Your task to perform on an android device: Add asus rog to the cart on amazon, then select checkout. Image 0: 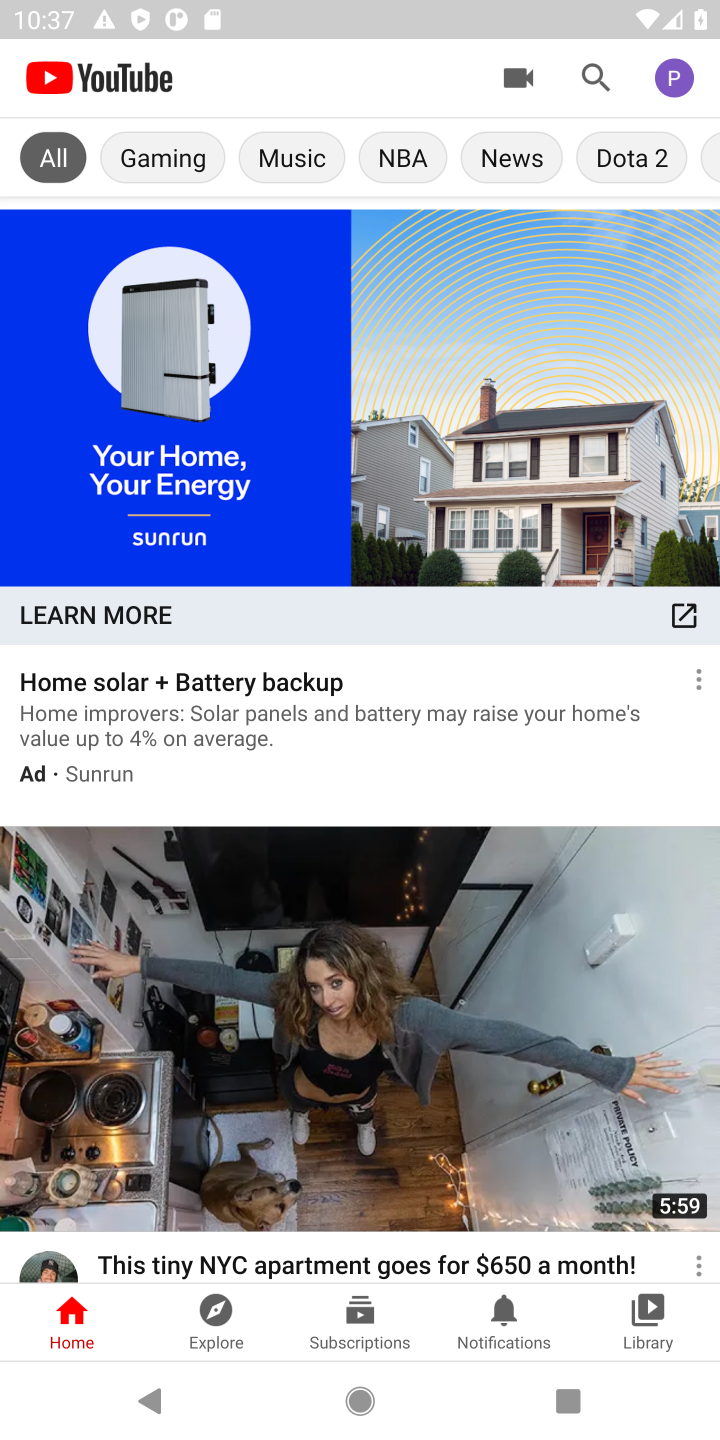
Step 0: press home button
Your task to perform on an android device: Add asus rog to the cart on amazon, then select checkout. Image 1: 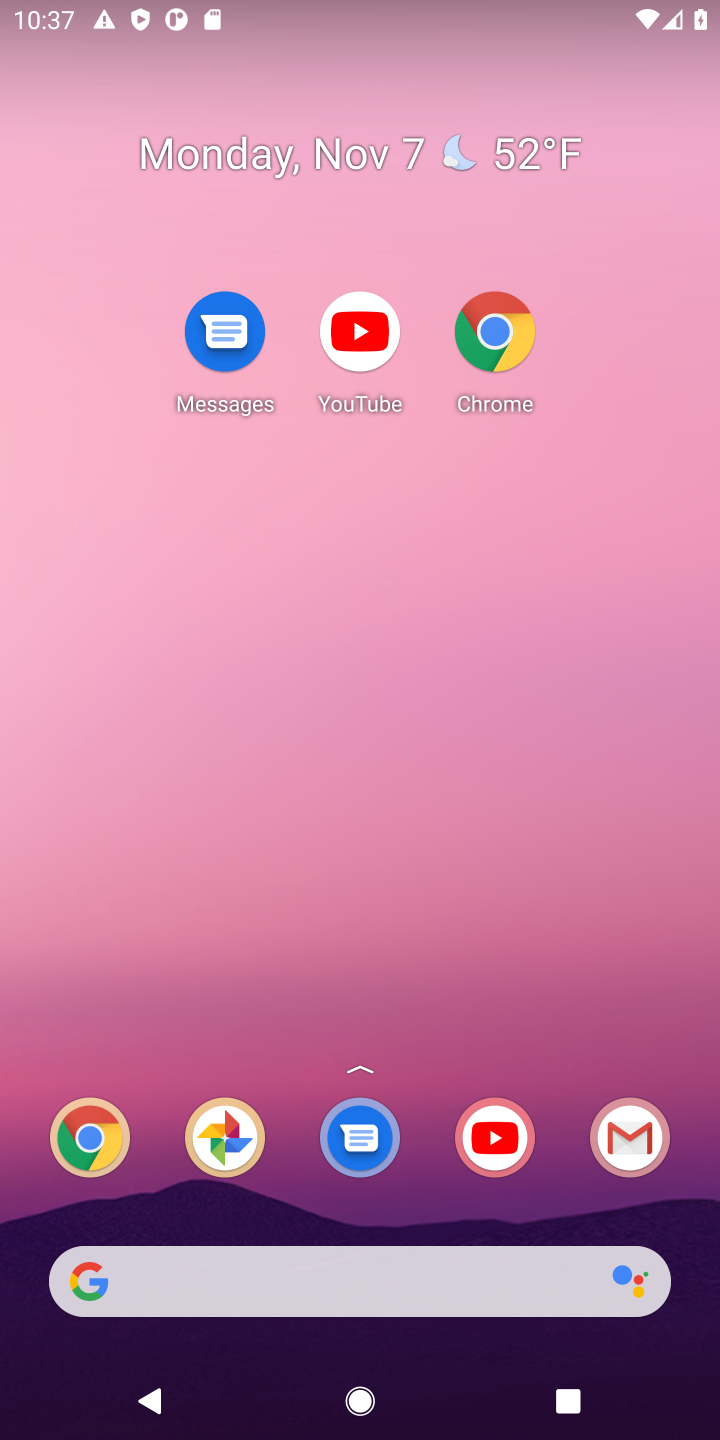
Step 1: drag from (474, 975) to (426, 6)
Your task to perform on an android device: Add asus rog to the cart on amazon, then select checkout. Image 2: 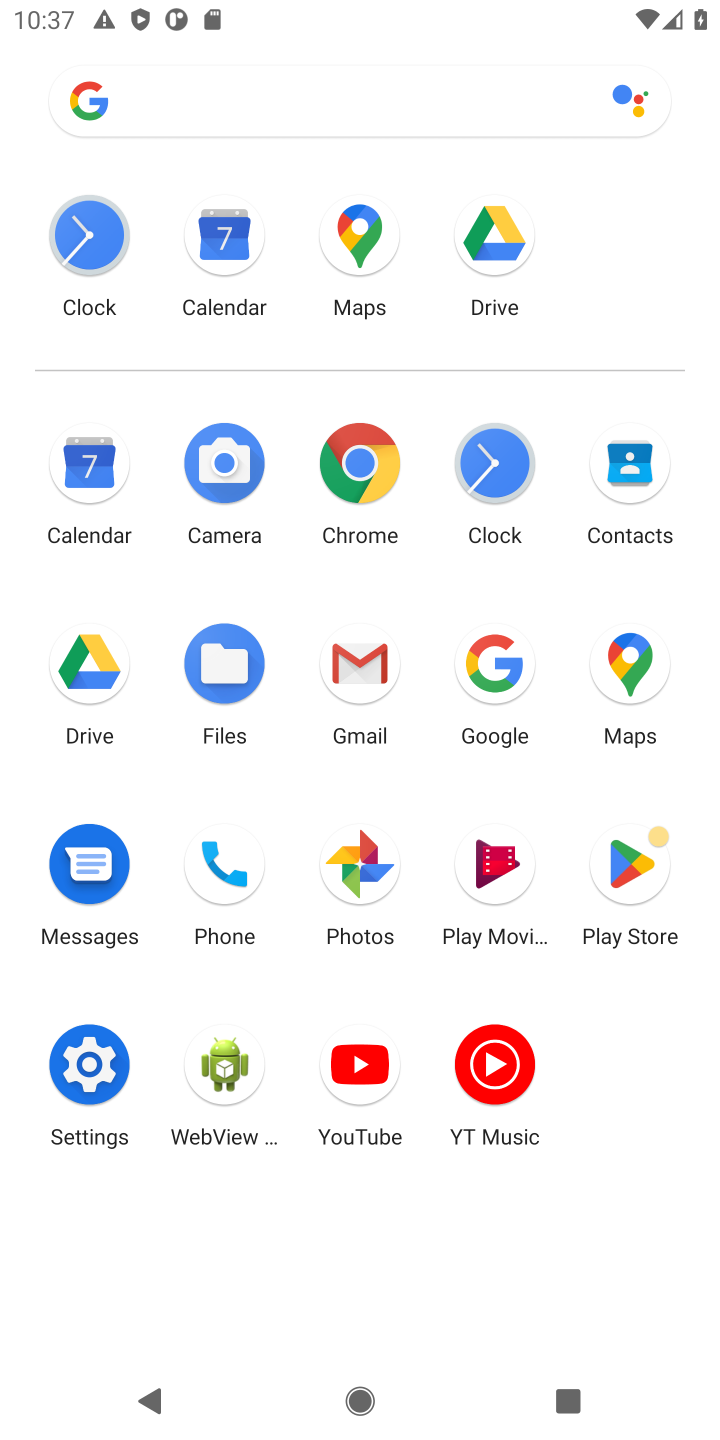
Step 2: click (354, 463)
Your task to perform on an android device: Add asus rog to the cart on amazon, then select checkout. Image 3: 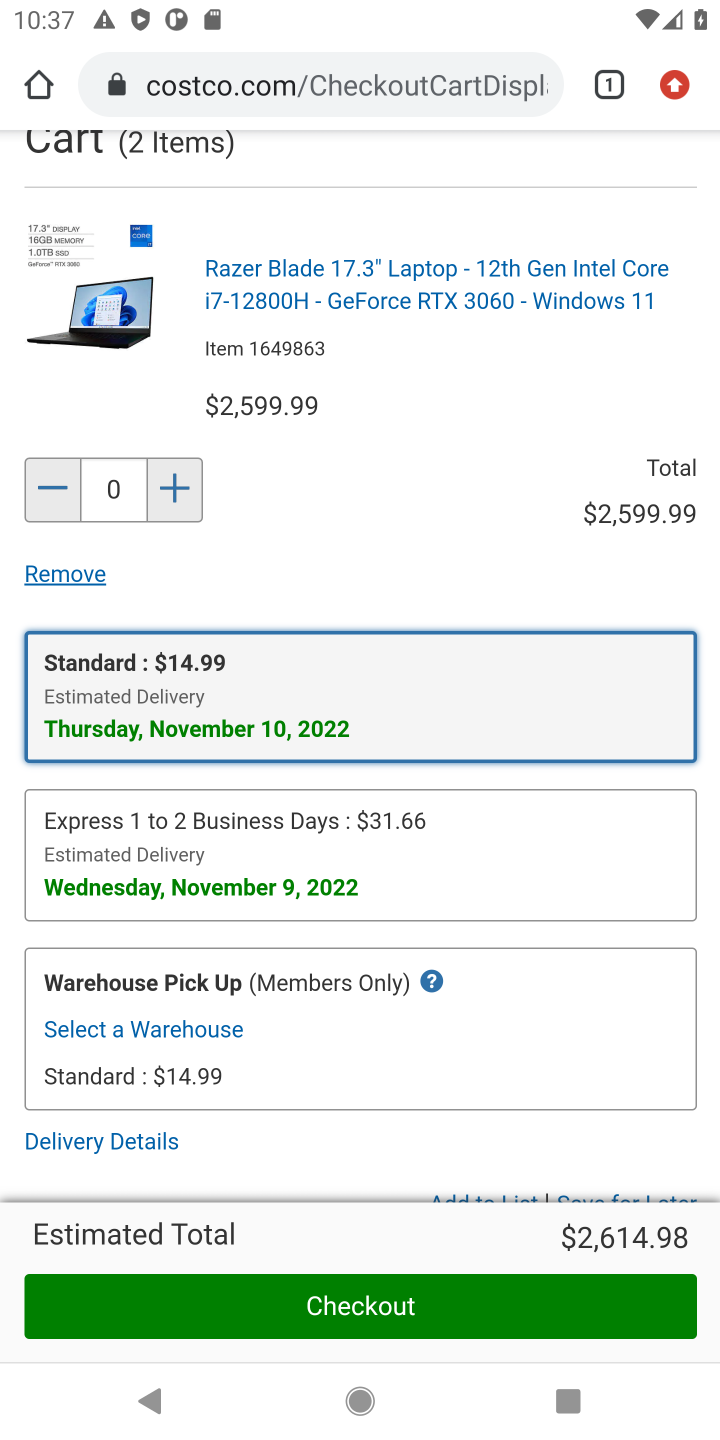
Step 3: click (431, 73)
Your task to perform on an android device: Add asus rog to the cart on amazon, then select checkout. Image 4: 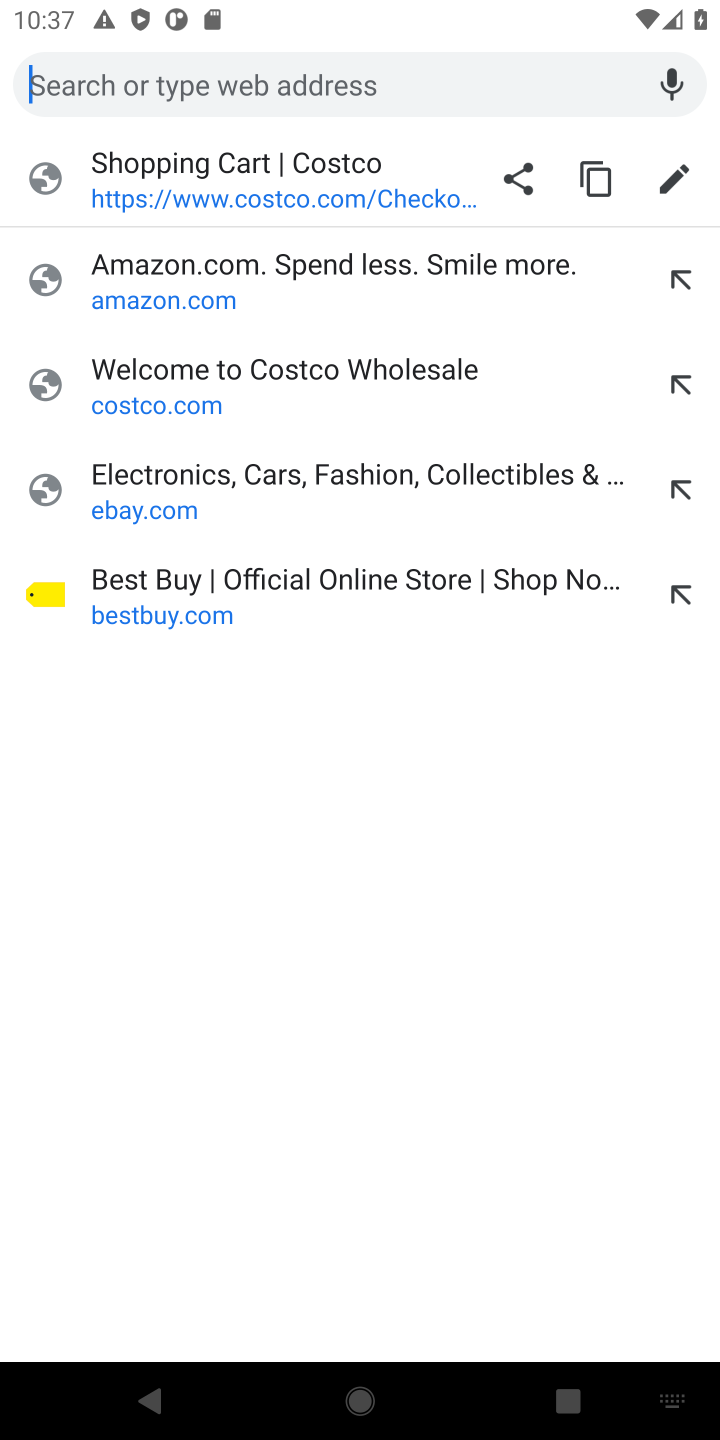
Step 4: type "amazon.com"
Your task to perform on an android device: Add asus rog to the cart on amazon, then select checkout. Image 5: 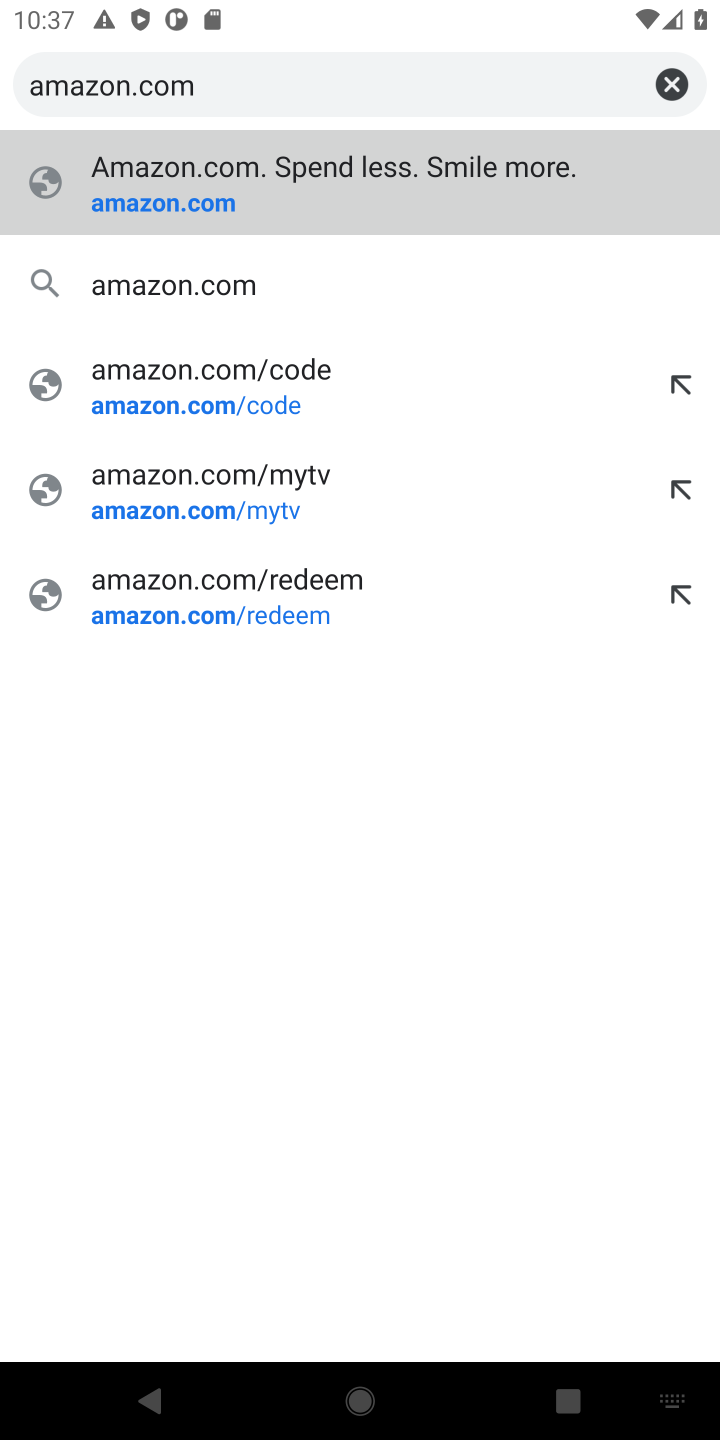
Step 5: press enter
Your task to perform on an android device: Add asus rog to the cart on amazon, then select checkout. Image 6: 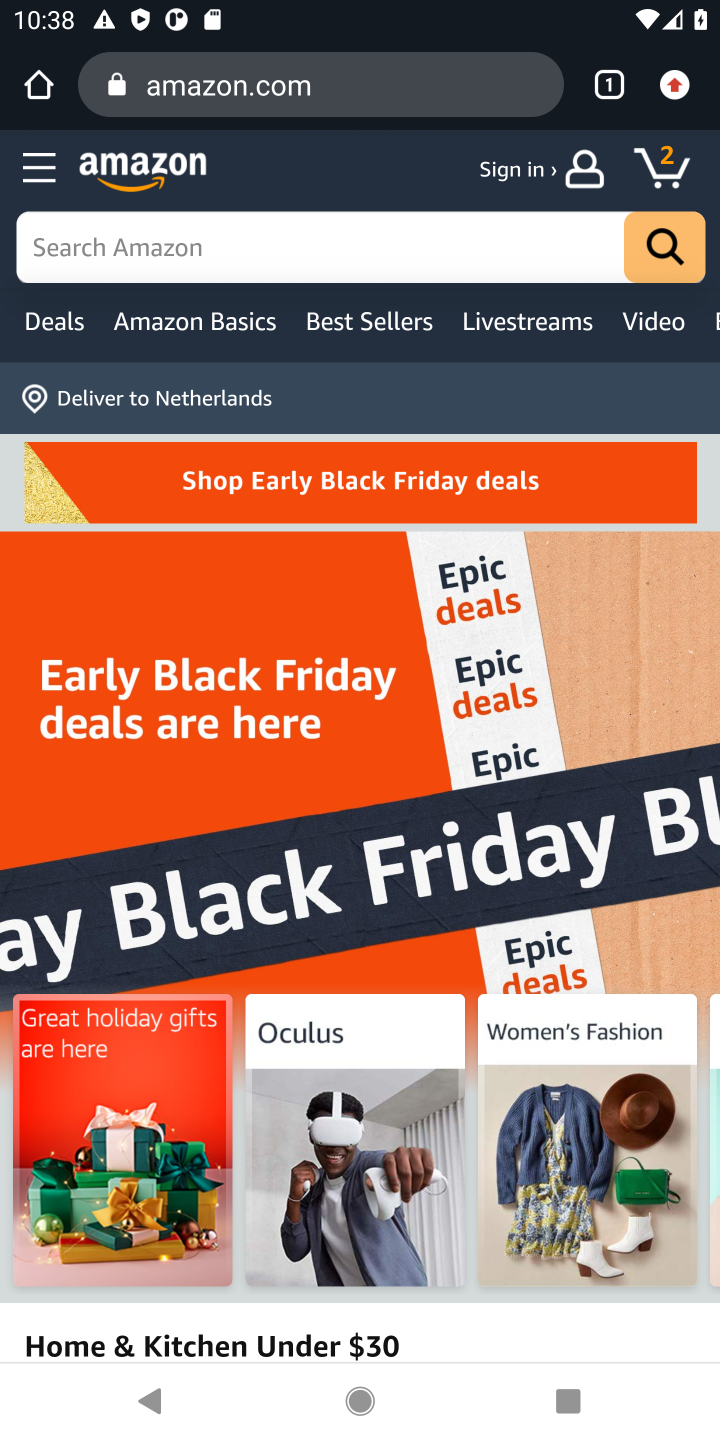
Step 6: click (493, 231)
Your task to perform on an android device: Add asus rog to the cart on amazon, then select checkout. Image 7: 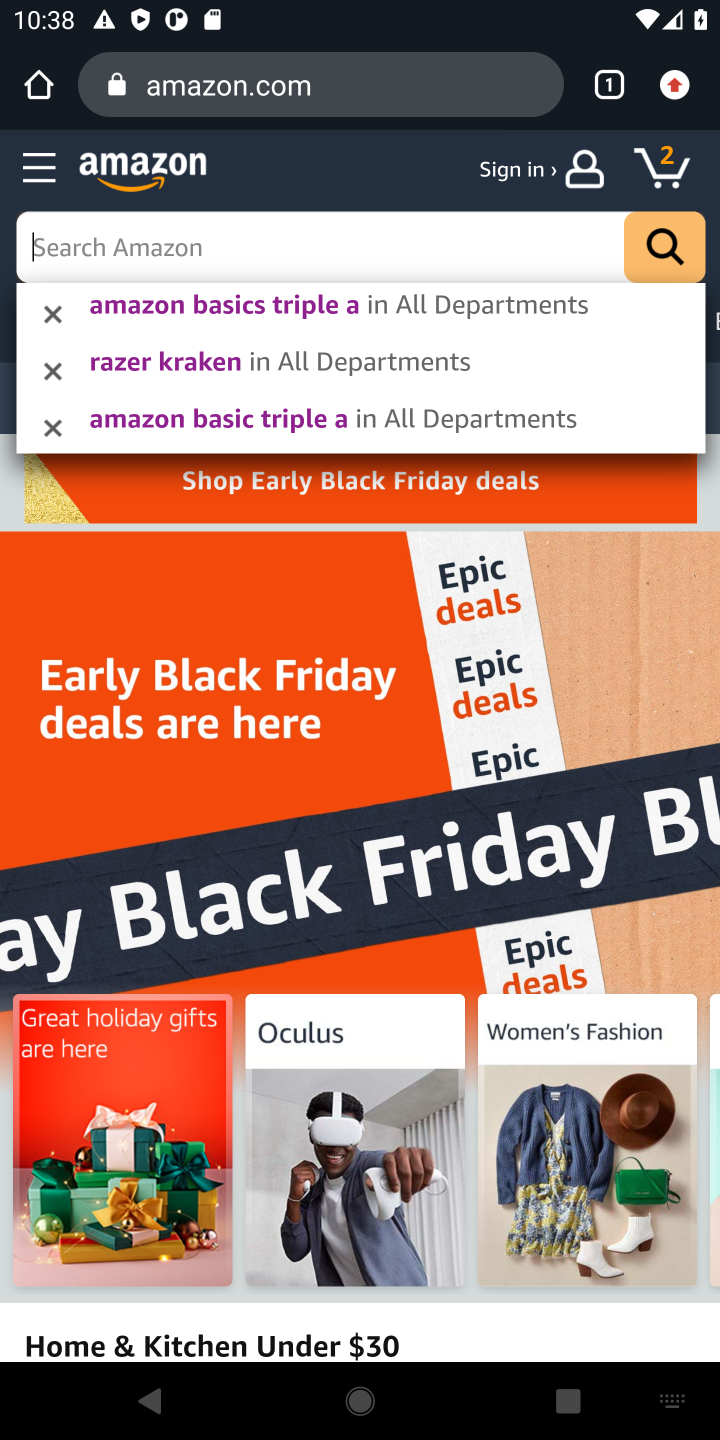
Step 7: type "asus rog"
Your task to perform on an android device: Add asus rog to the cart on amazon, then select checkout. Image 8: 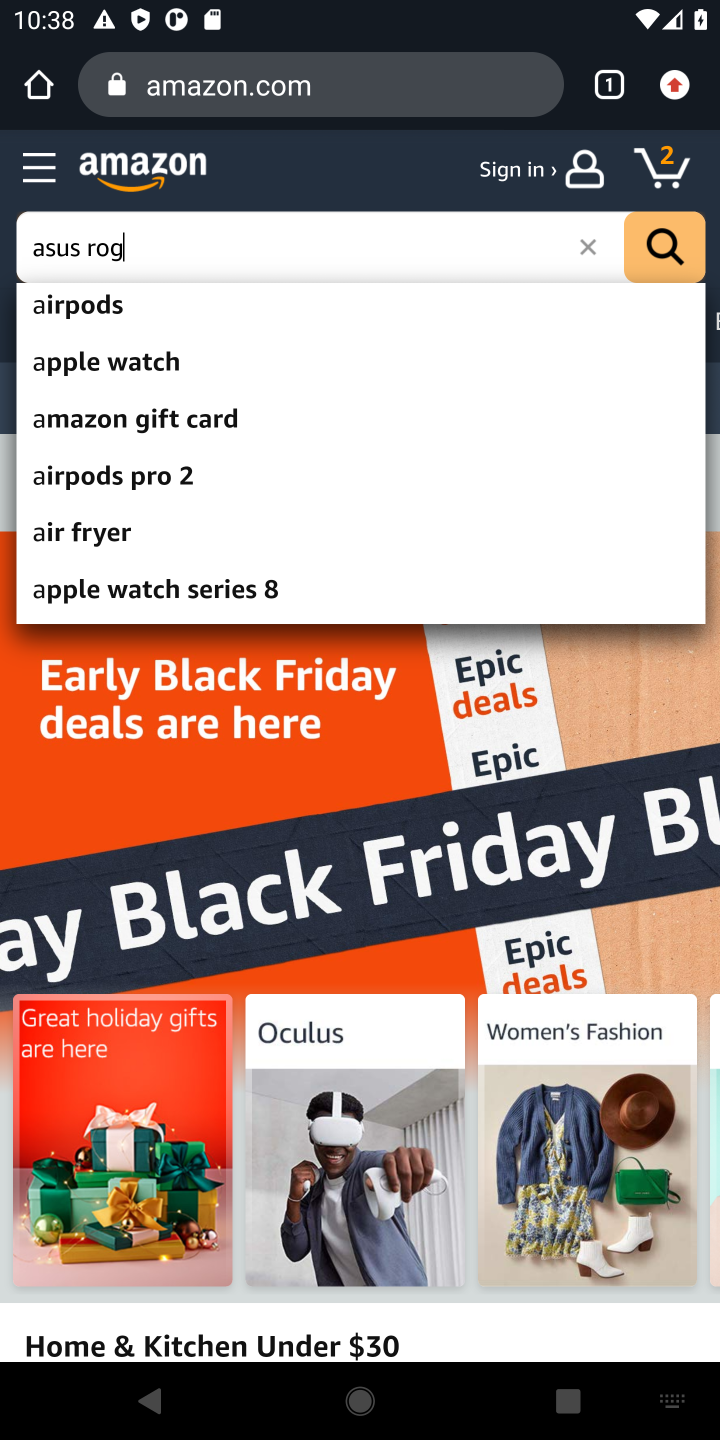
Step 8: press enter
Your task to perform on an android device: Add asus rog to the cart on amazon, then select checkout. Image 9: 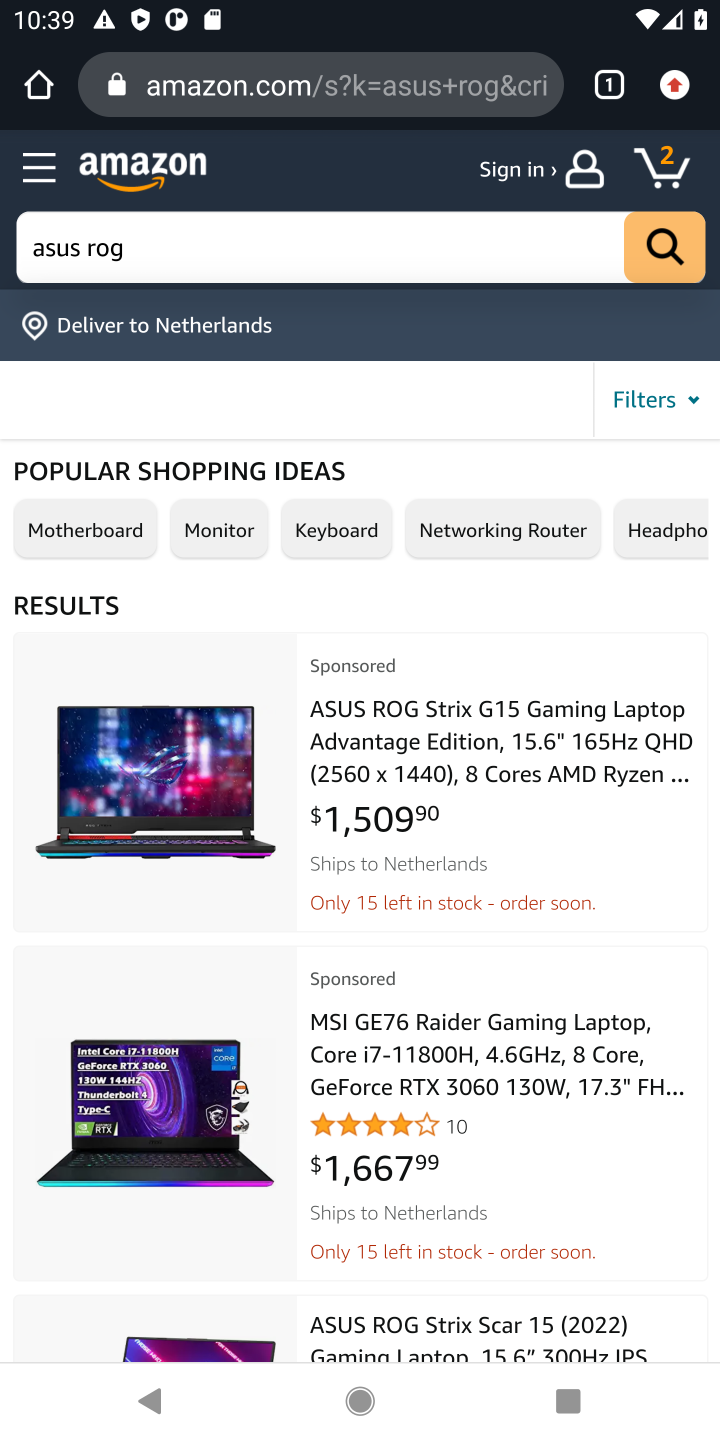
Step 9: drag from (480, 1020) to (509, 502)
Your task to perform on an android device: Add asus rog to the cart on amazon, then select checkout. Image 10: 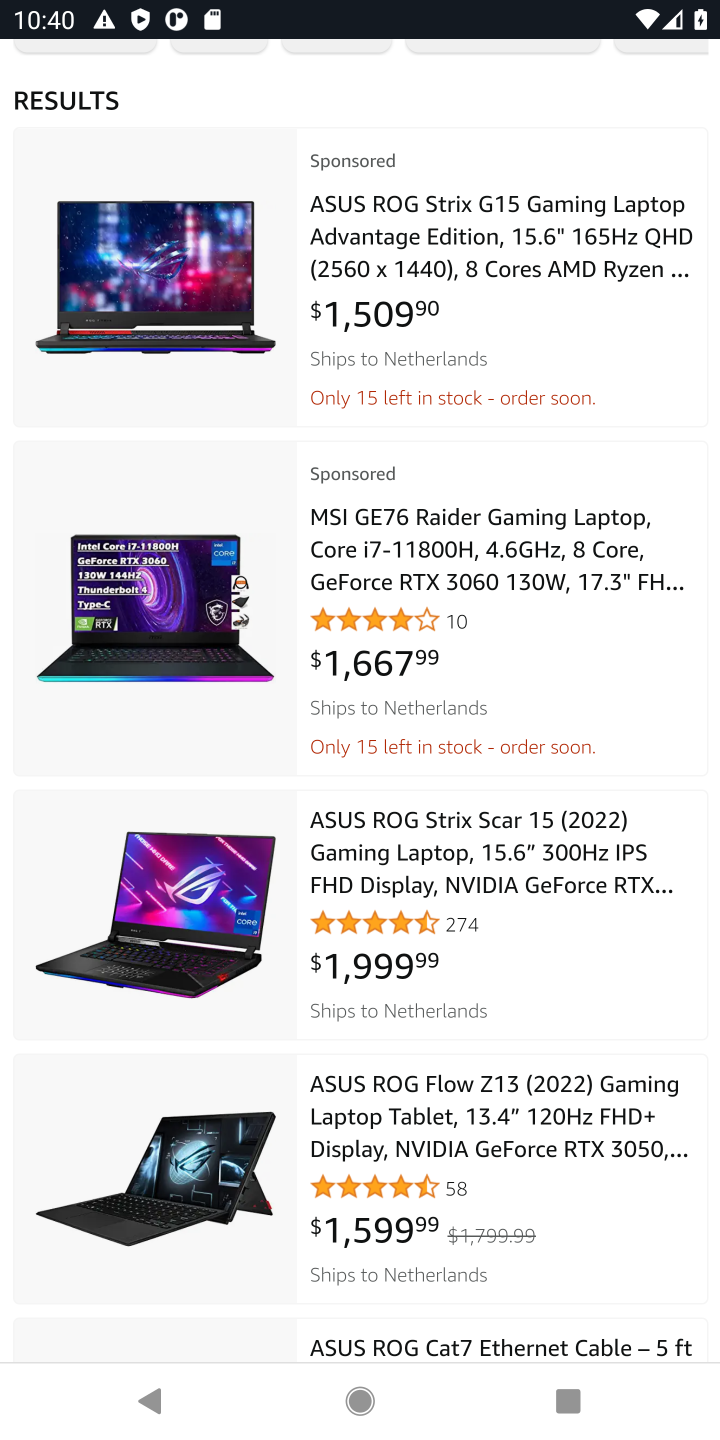
Step 10: click (436, 862)
Your task to perform on an android device: Add asus rog to the cart on amazon, then select checkout. Image 11: 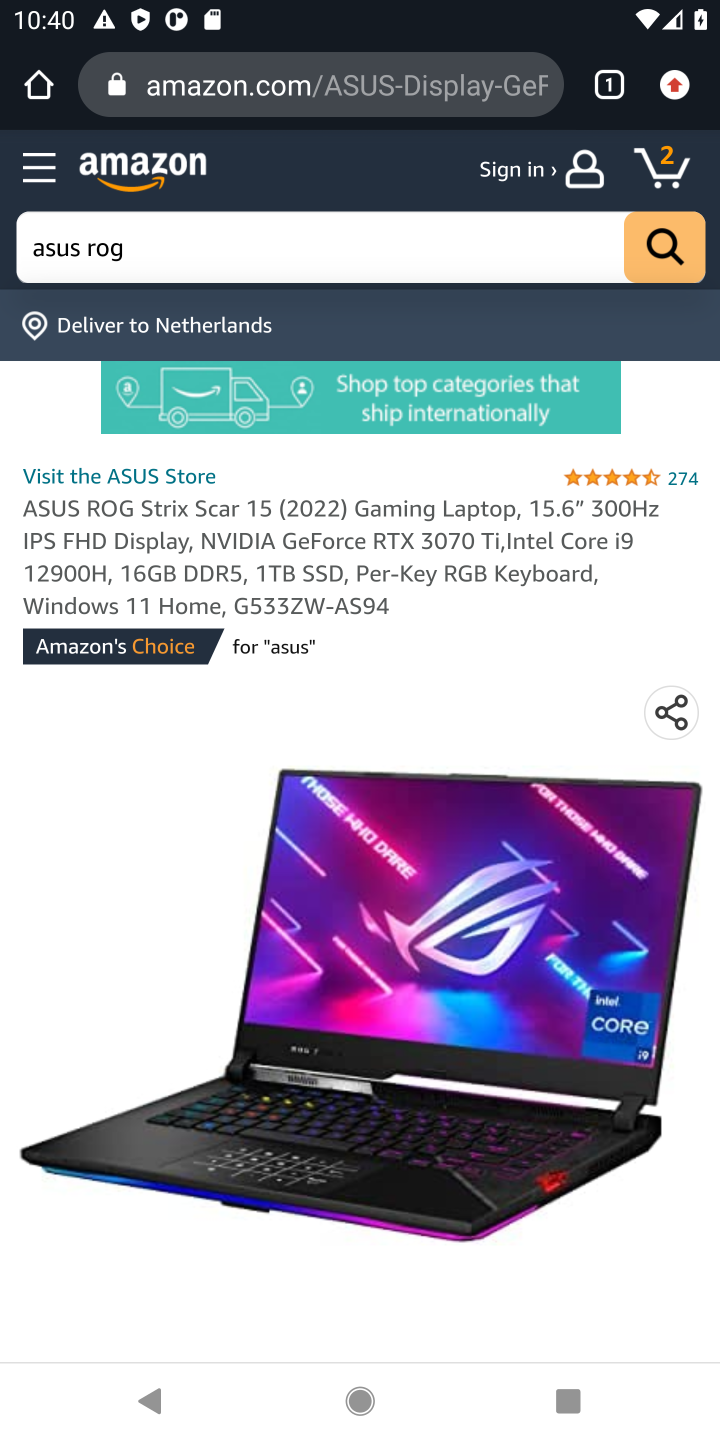
Step 11: drag from (421, 1044) to (455, 335)
Your task to perform on an android device: Add asus rog to the cart on amazon, then select checkout. Image 12: 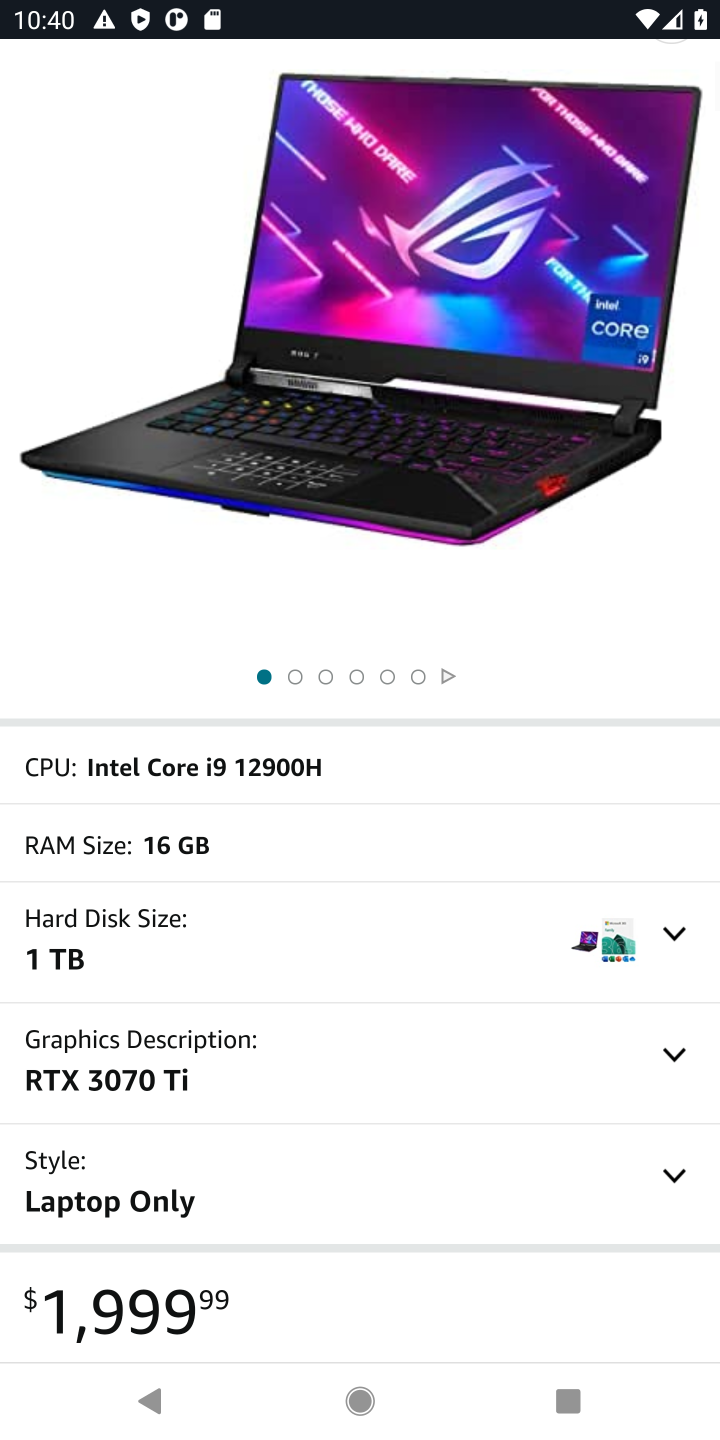
Step 12: drag from (410, 1088) to (515, 539)
Your task to perform on an android device: Add asus rog to the cart on amazon, then select checkout. Image 13: 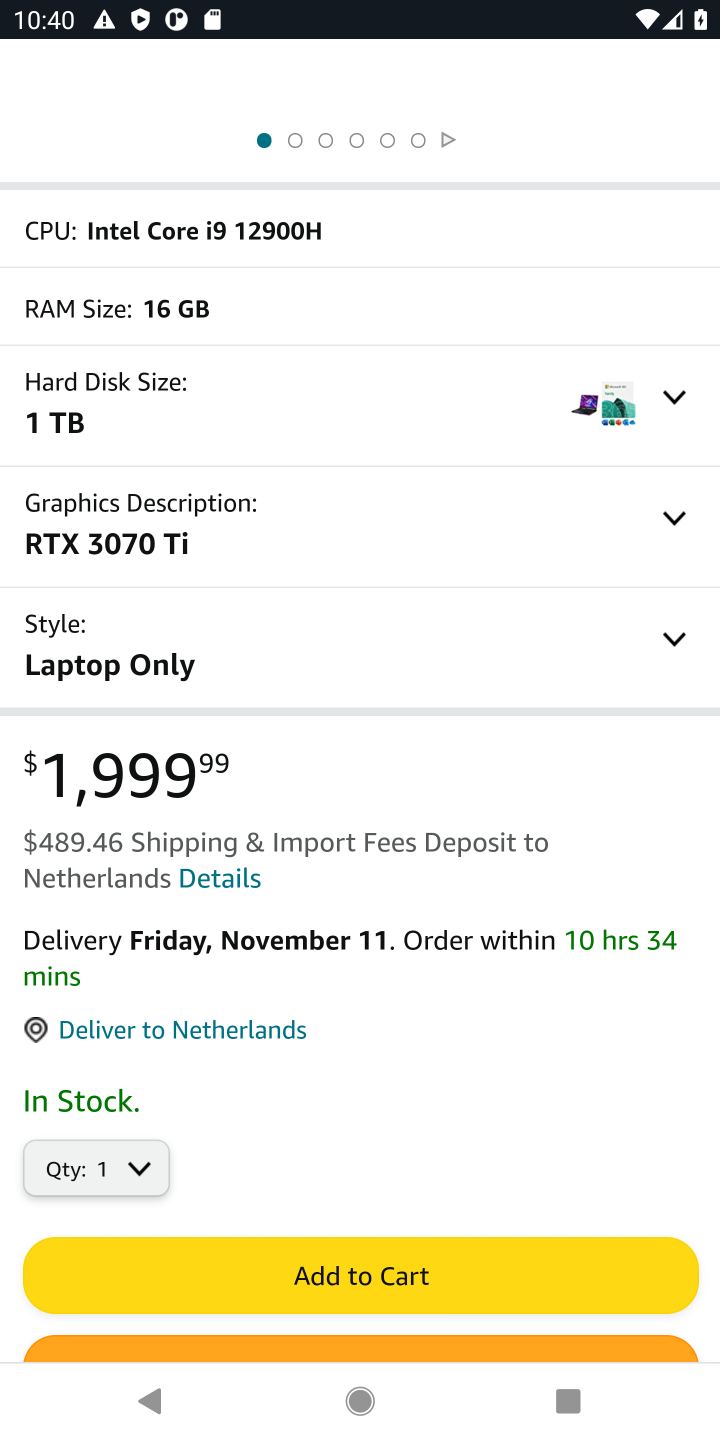
Step 13: click (369, 1290)
Your task to perform on an android device: Add asus rog to the cart on amazon, then select checkout. Image 14: 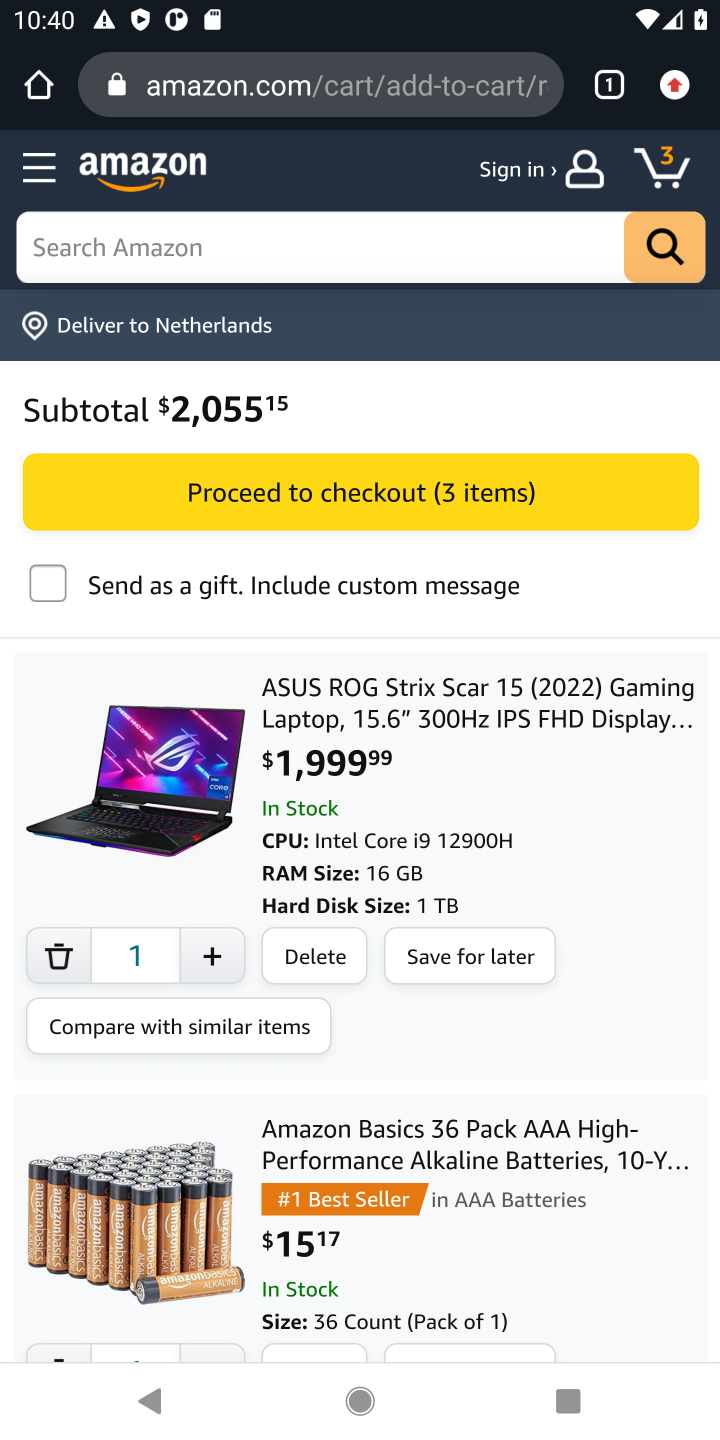
Step 14: click (553, 486)
Your task to perform on an android device: Add asus rog to the cart on amazon, then select checkout. Image 15: 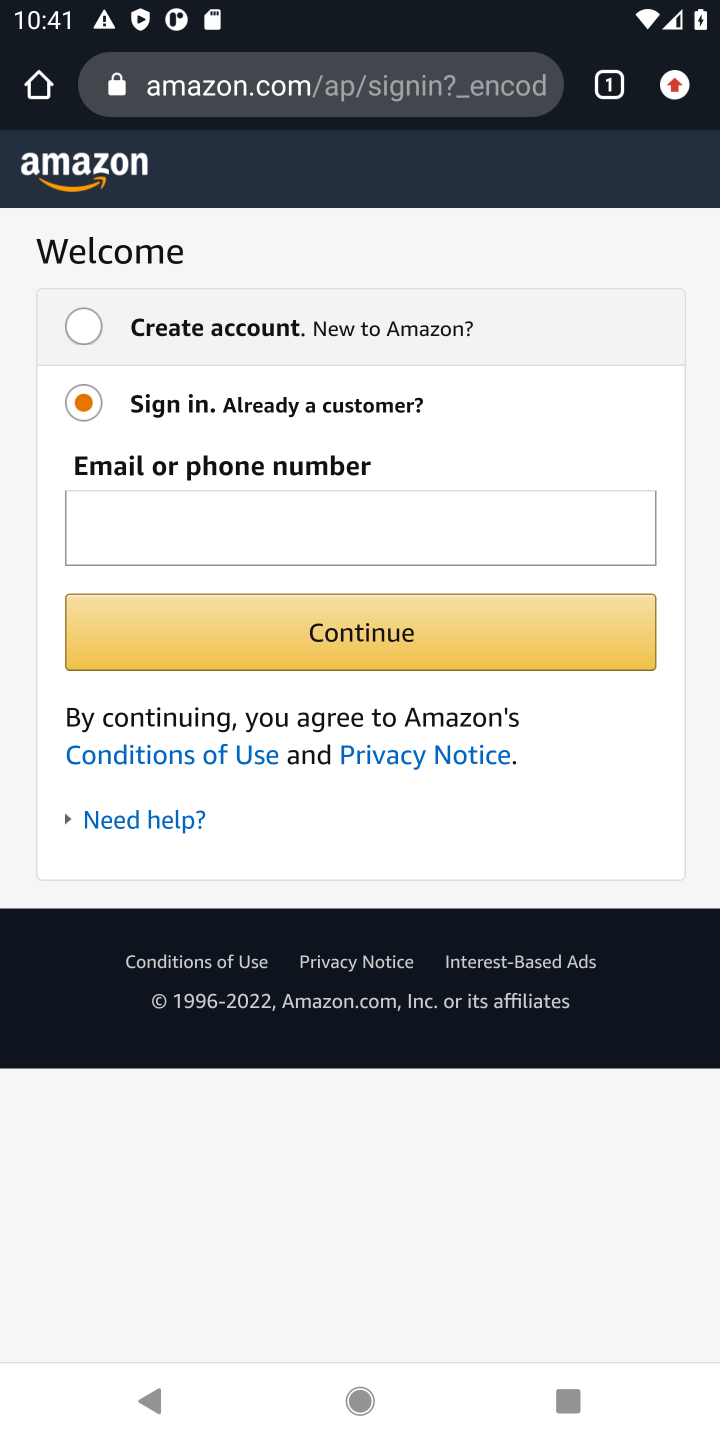
Step 15: task complete